Your task to perform on an android device: Open Google Image 0: 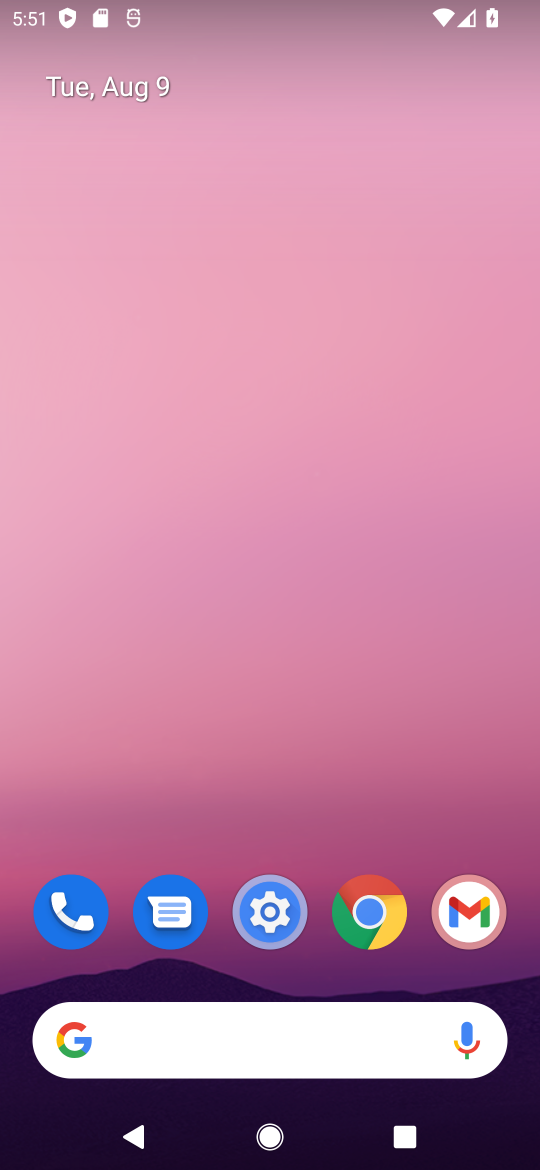
Step 0: press home button
Your task to perform on an android device: Open Google Image 1: 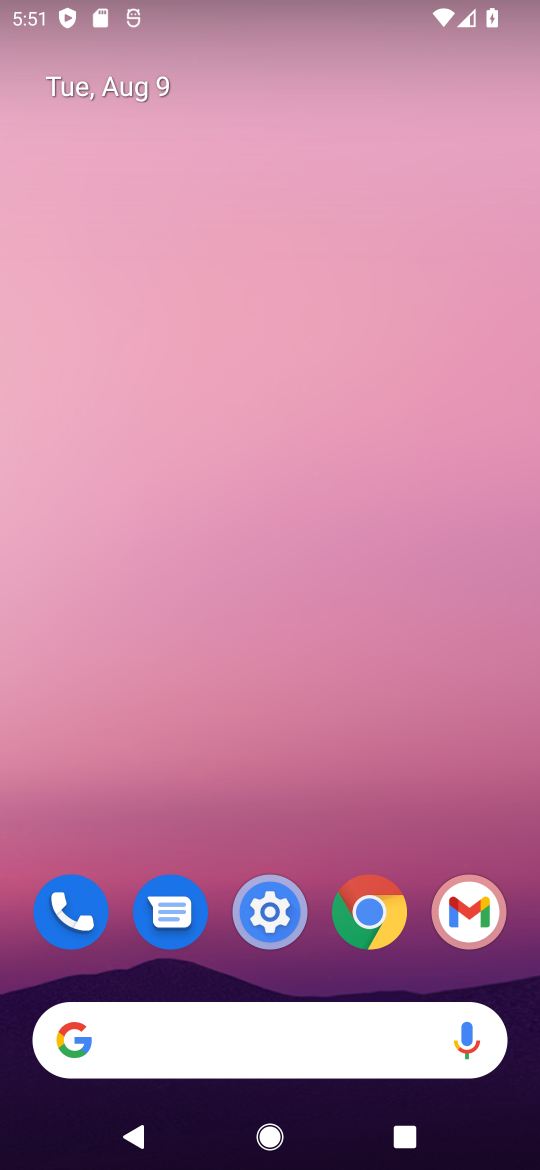
Step 1: drag from (330, 978) to (317, 231)
Your task to perform on an android device: Open Google Image 2: 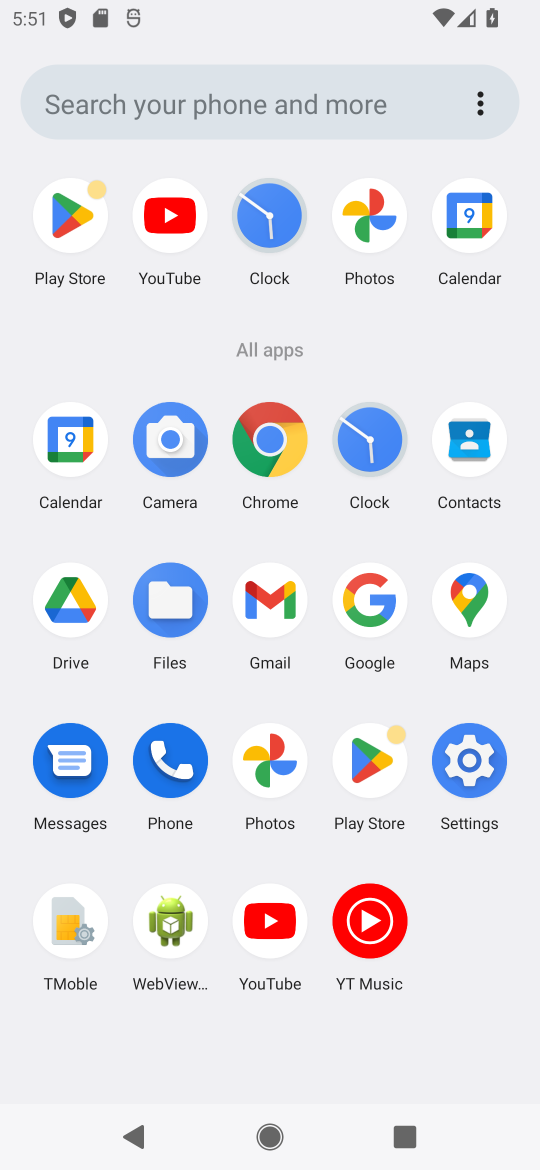
Step 2: click (373, 597)
Your task to perform on an android device: Open Google Image 3: 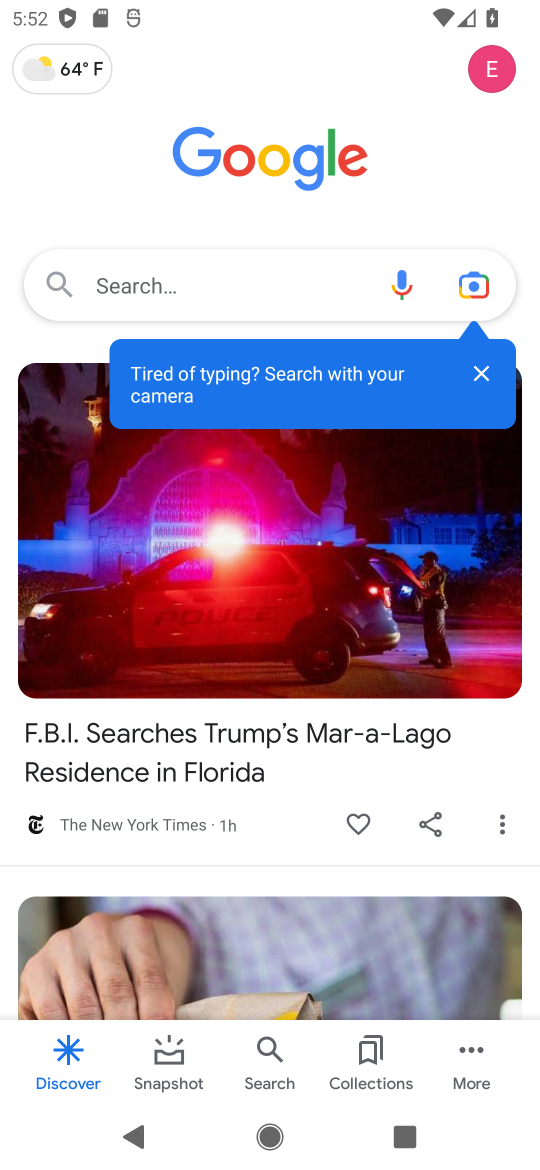
Step 3: task complete